Your task to perform on an android device: Open the phone app and click the voicemail tab. Image 0: 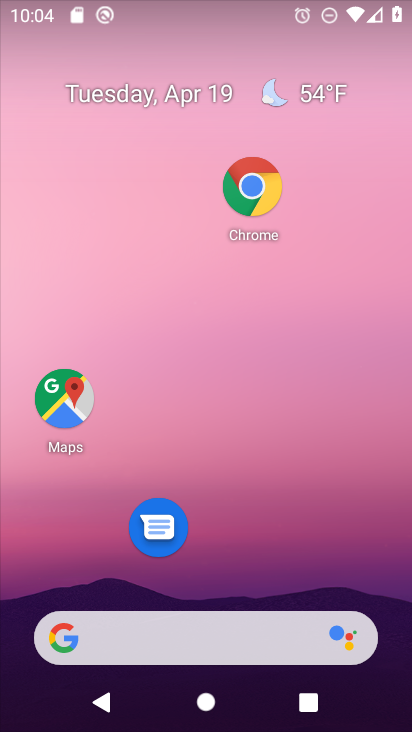
Step 0: drag from (284, 406) to (281, 190)
Your task to perform on an android device: Open the phone app and click the voicemail tab. Image 1: 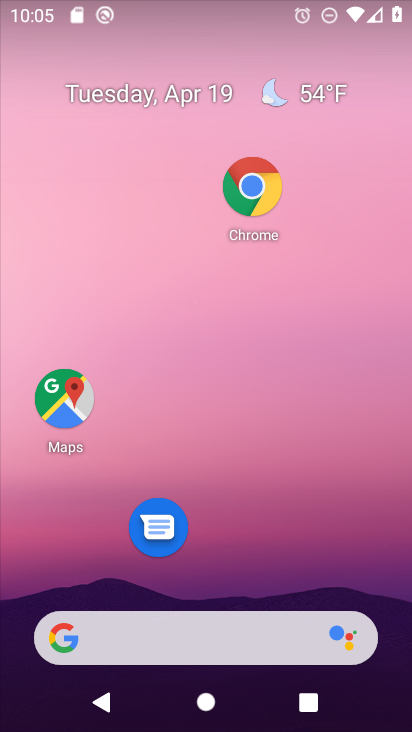
Step 1: press home button
Your task to perform on an android device: Open the phone app and click the voicemail tab. Image 2: 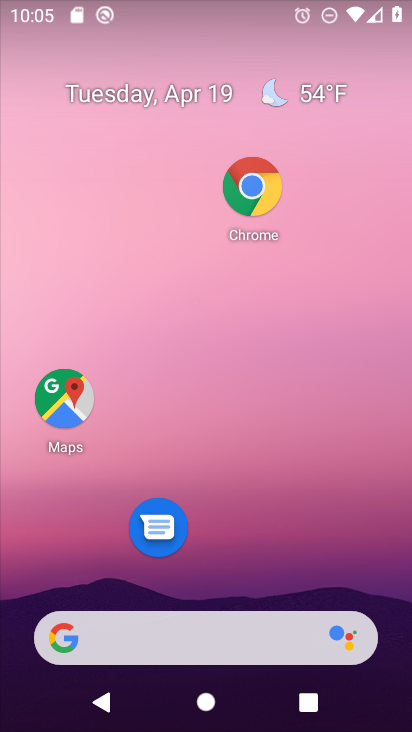
Step 2: drag from (269, 564) to (308, 199)
Your task to perform on an android device: Open the phone app and click the voicemail tab. Image 3: 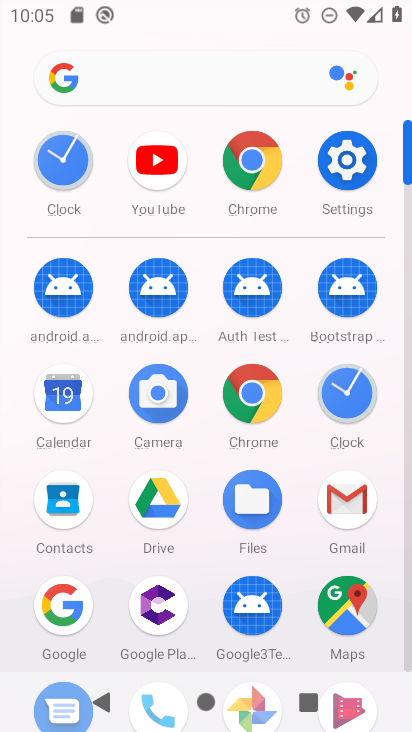
Step 3: drag from (268, 624) to (298, 248)
Your task to perform on an android device: Open the phone app and click the voicemail tab. Image 4: 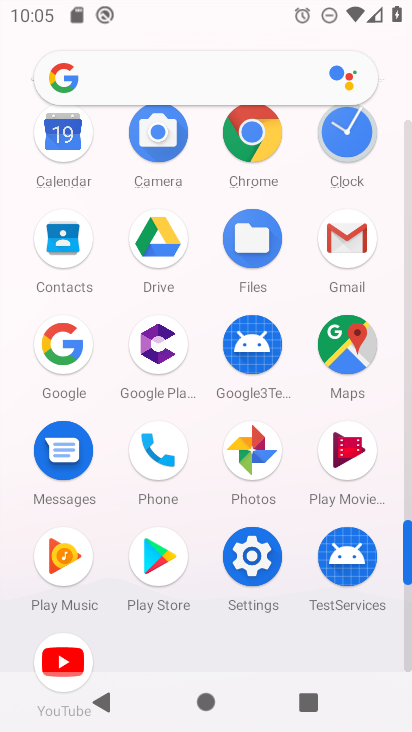
Step 4: click (168, 443)
Your task to perform on an android device: Open the phone app and click the voicemail tab. Image 5: 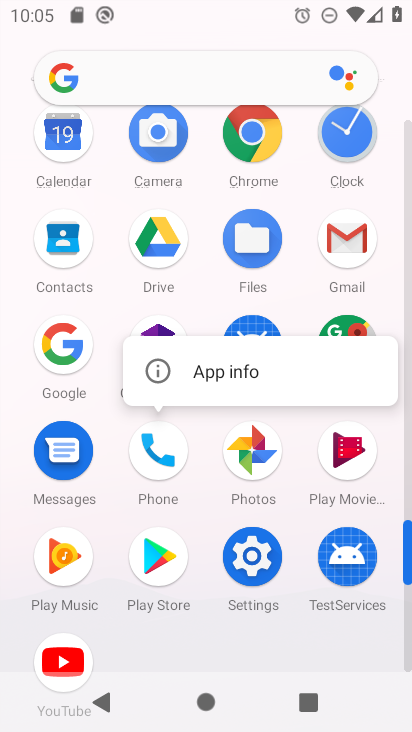
Step 5: click (158, 447)
Your task to perform on an android device: Open the phone app and click the voicemail tab. Image 6: 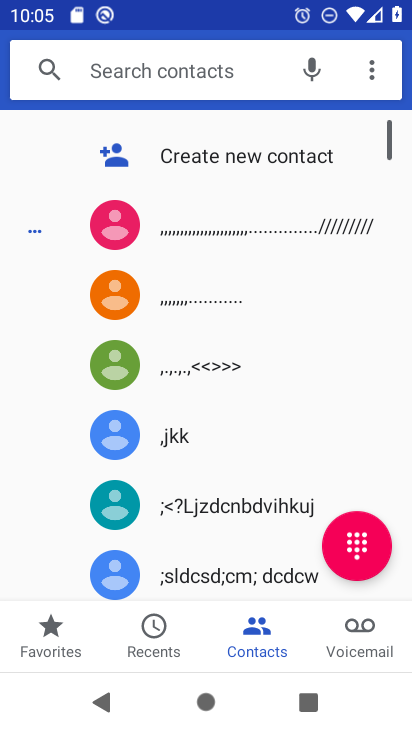
Step 6: click (334, 638)
Your task to perform on an android device: Open the phone app and click the voicemail tab. Image 7: 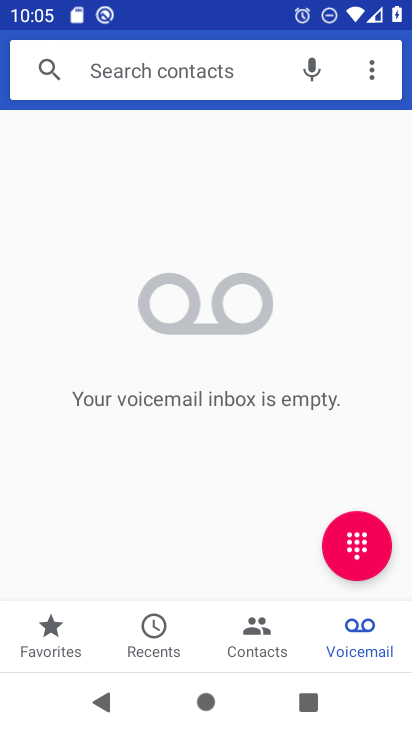
Step 7: task complete